Your task to perform on an android device: Search for sushi restaurants on Maps Image 0: 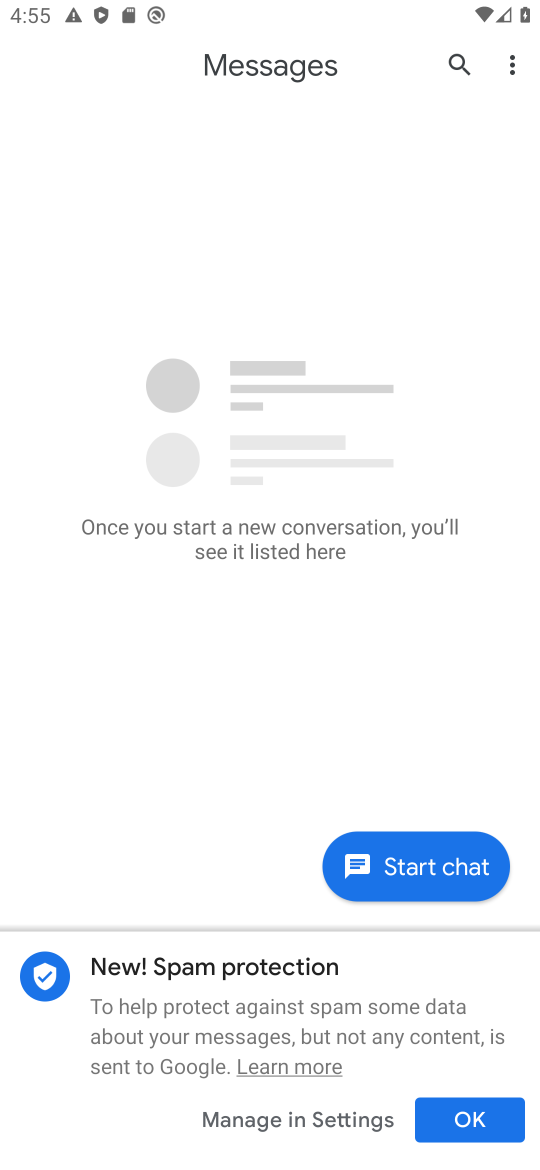
Step 0: press home button
Your task to perform on an android device: Search for sushi restaurants on Maps Image 1: 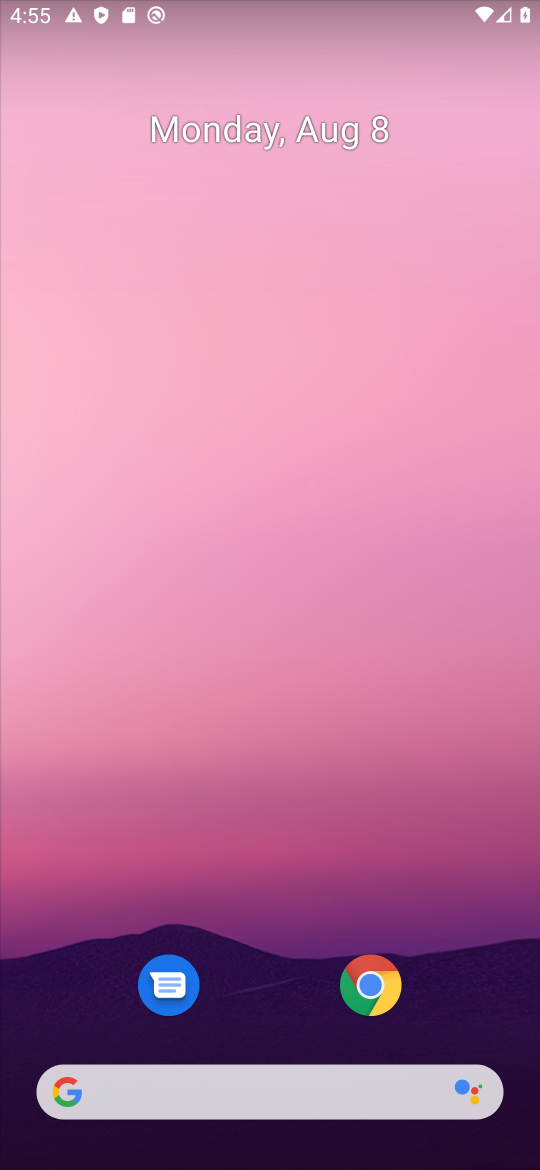
Step 1: drag from (304, 862) to (253, 280)
Your task to perform on an android device: Search for sushi restaurants on Maps Image 2: 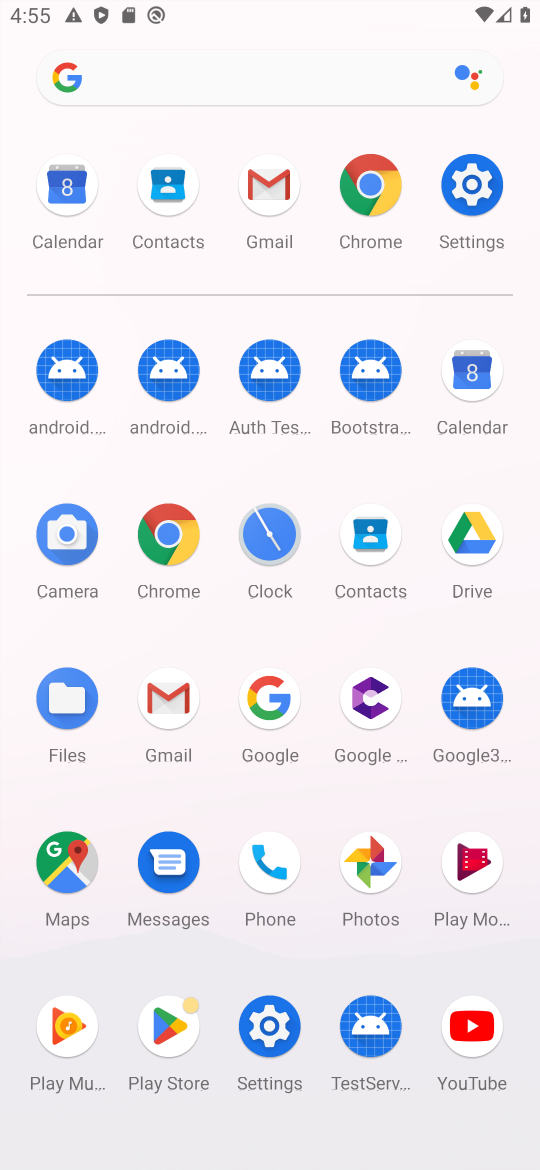
Step 2: click (56, 874)
Your task to perform on an android device: Search for sushi restaurants on Maps Image 3: 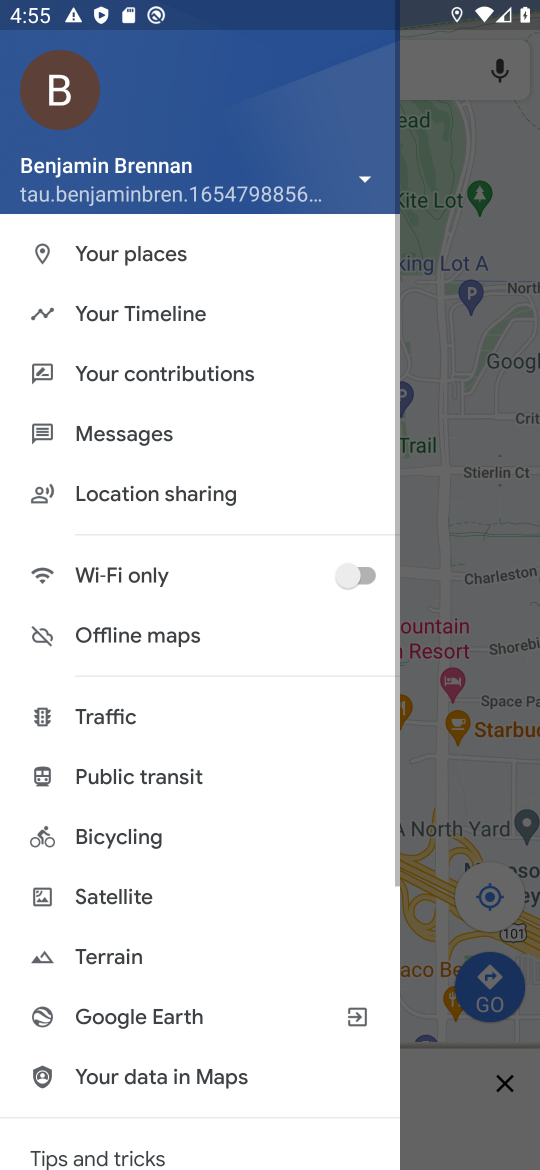
Step 3: click (436, 205)
Your task to perform on an android device: Search for sushi restaurants on Maps Image 4: 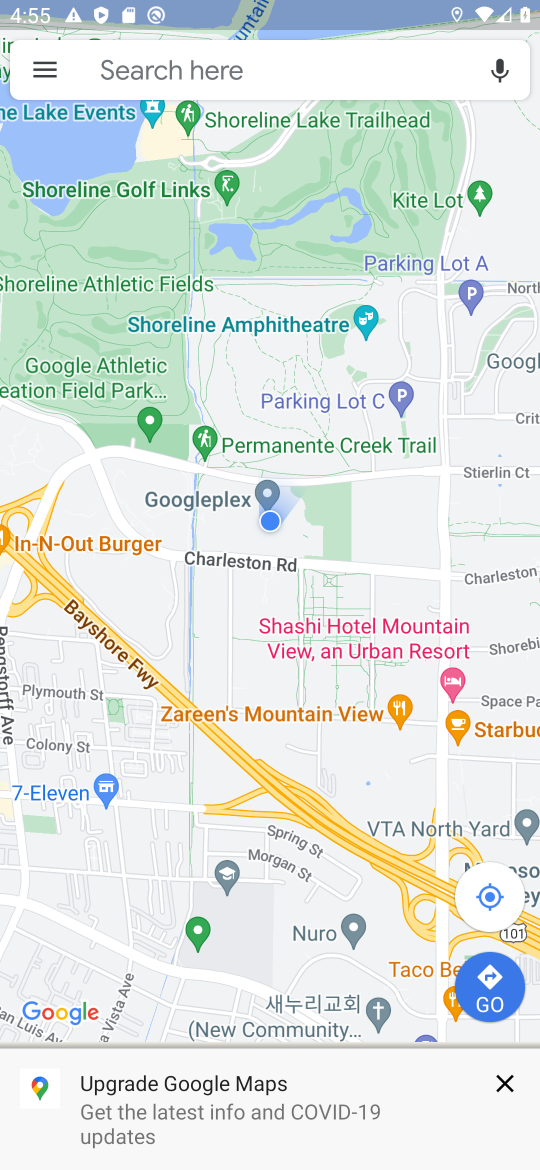
Step 4: click (294, 77)
Your task to perform on an android device: Search for sushi restaurants on Maps Image 5: 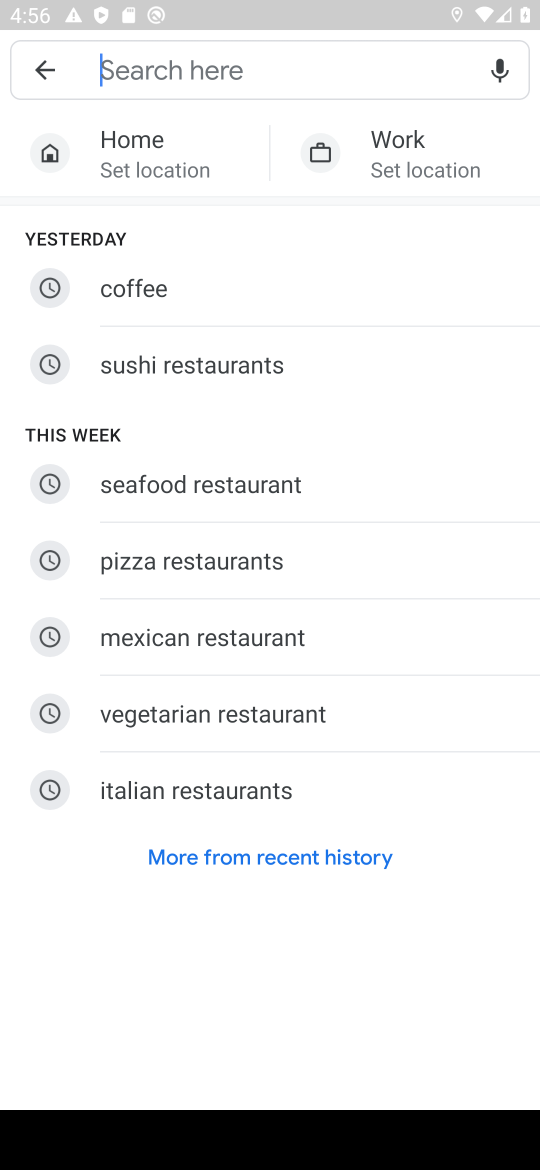
Step 5: type "sushi restaurants "
Your task to perform on an android device: Search for sushi restaurants on Maps Image 6: 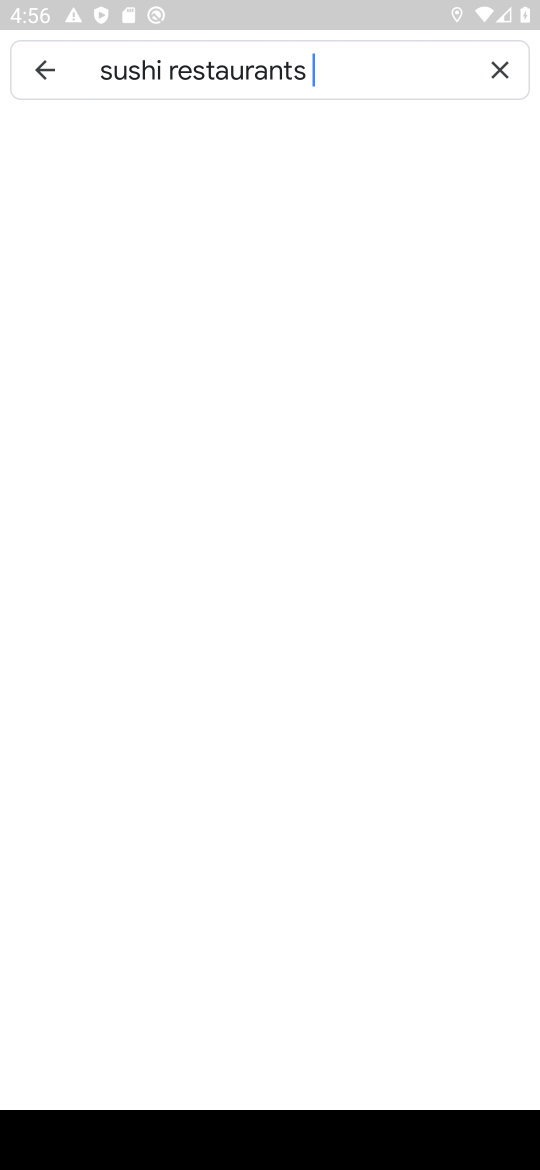
Step 6: press enter
Your task to perform on an android device: Search for sushi restaurants on Maps Image 7: 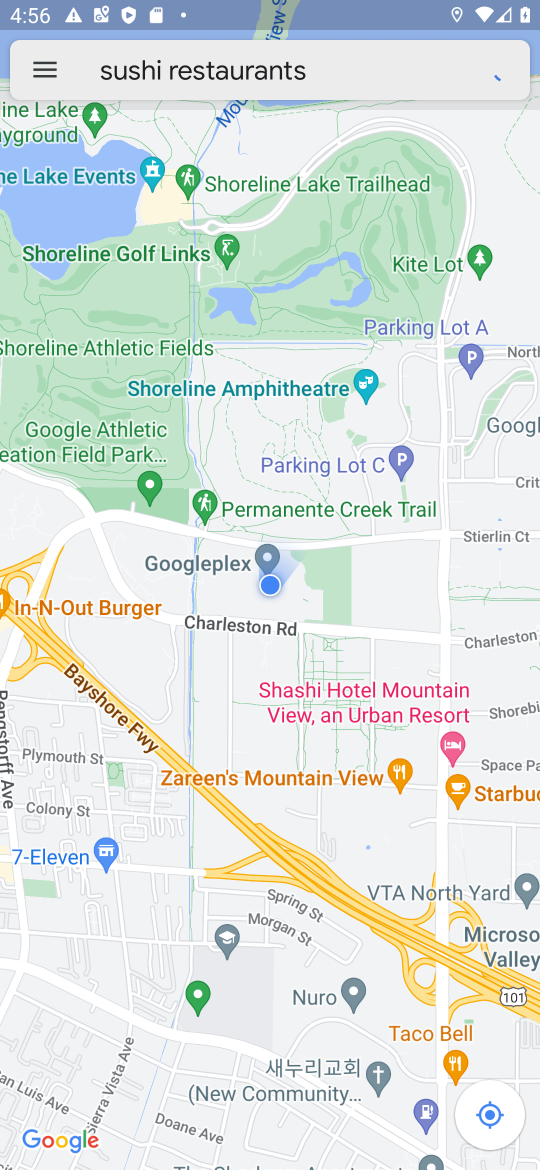
Step 7: task complete